Your task to perform on an android device: open the mobile data screen to see how much data has been used Image 0: 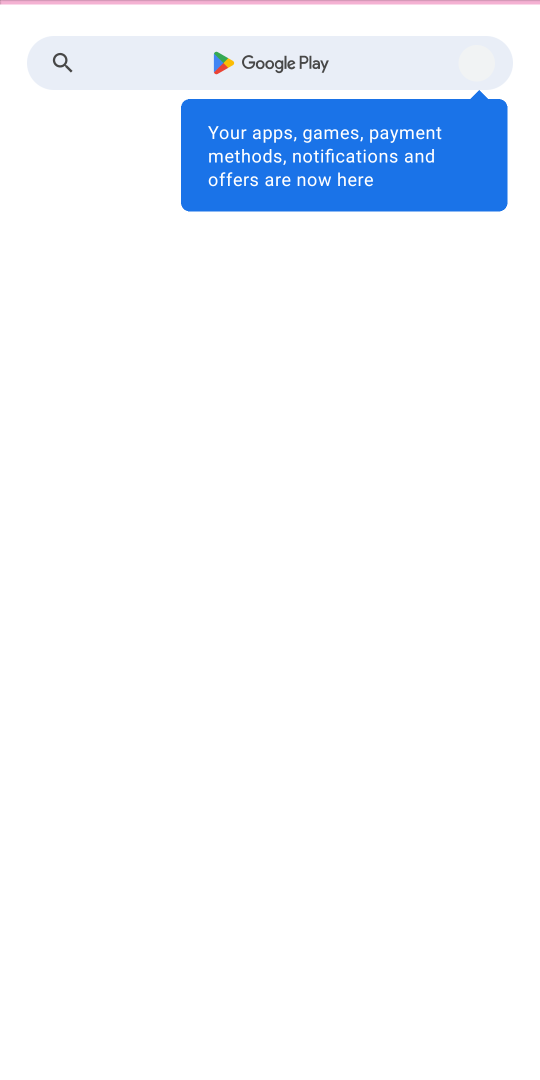
Step 0: press home button
Your task to perform on an android device: open the mobile data screen to see how much data has been used Image 1: 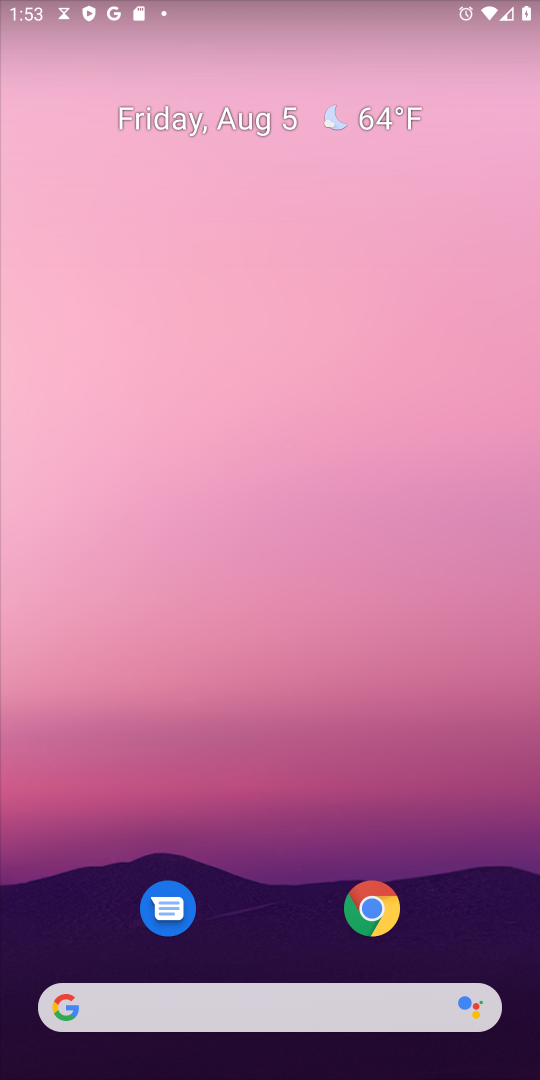
Step 1: drag from (364, 808) to (407, 493)
Your task to perform on an android device: open the mobile data screen to see how much data has been used Image 2: 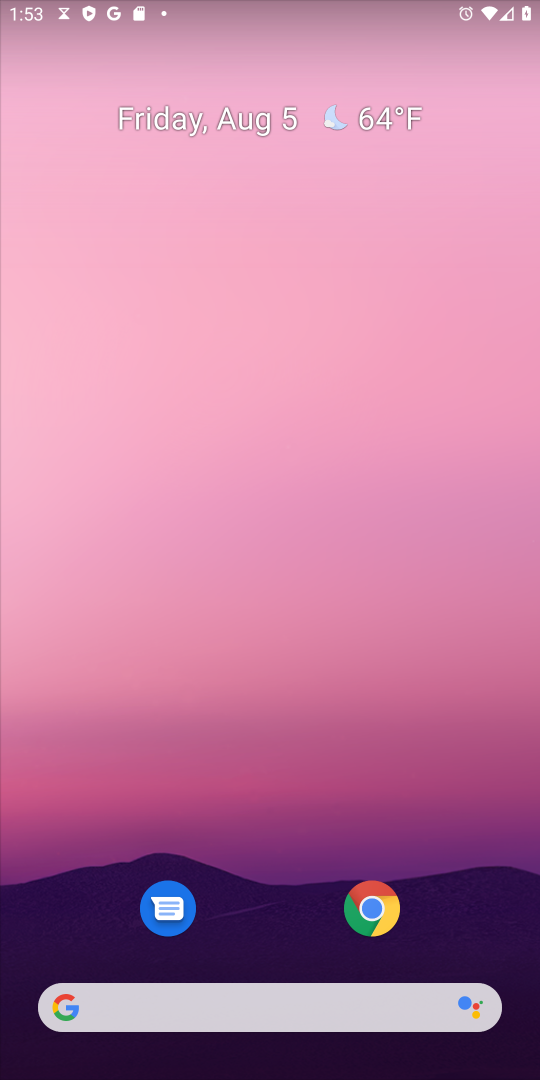
Step 2: drag from (492, 13) to (248, 667)
Your task to perform on an android device: open the mobile data screen to see how much data has been used Image 3: 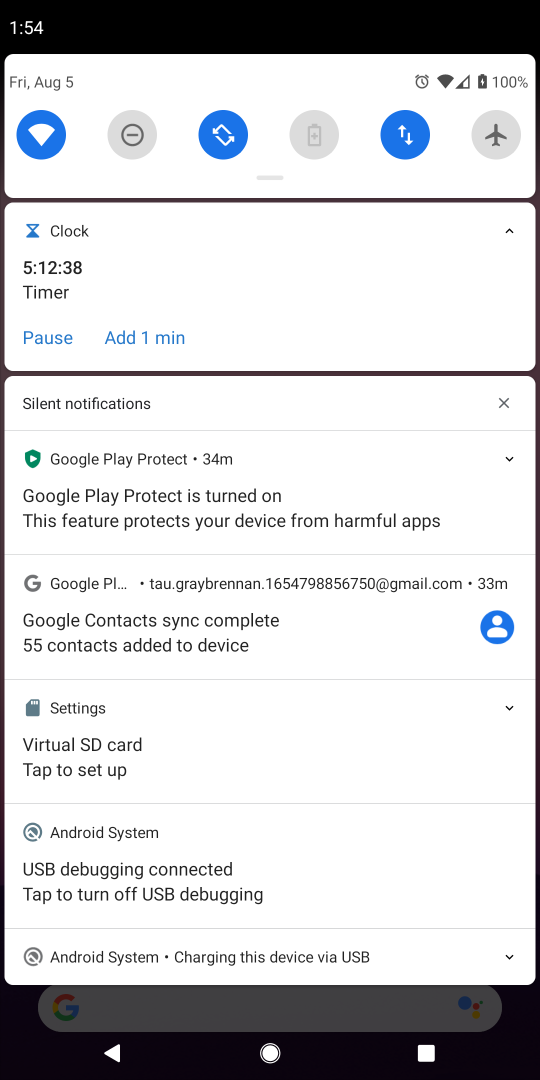
Step 3: click (402, 134)
Your task to perform on an android device: open the mobile data screen to see how much data has been used Image 4: 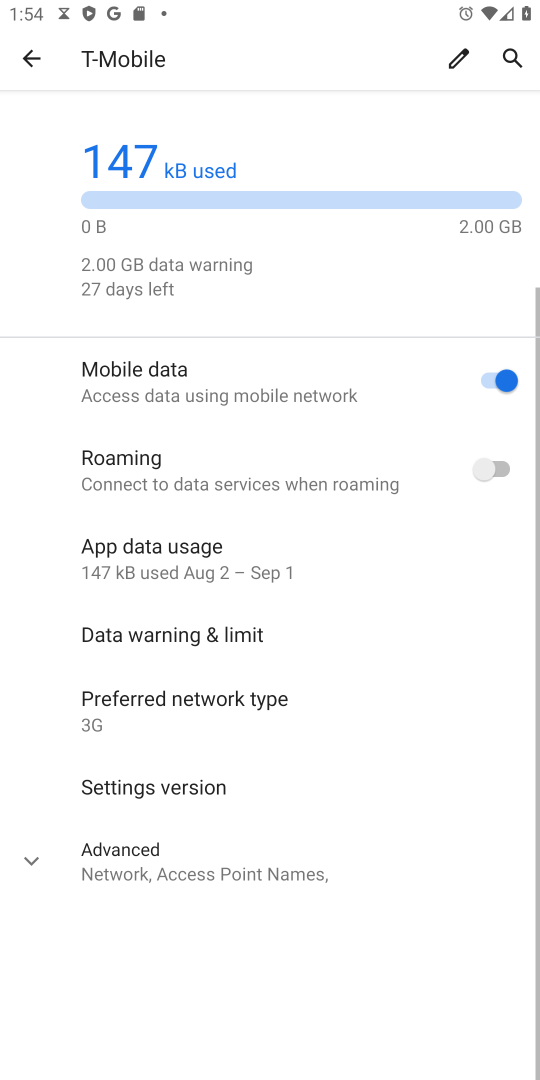
Step 4: task complete